Your task to perform on an android device: What's the weather? Image 0: 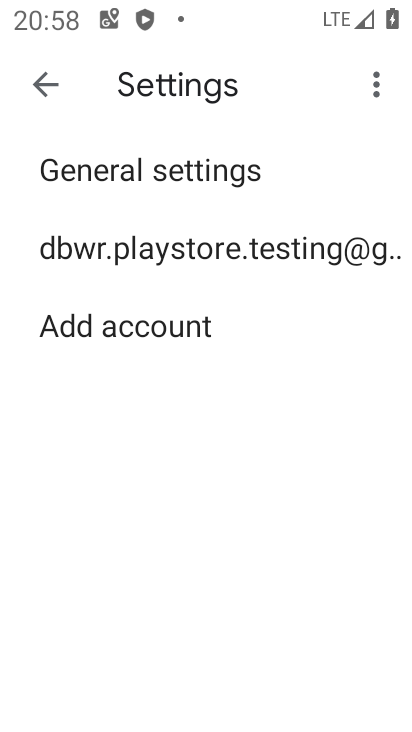
Step 0: press home button
Your task to perform on an android device: What's the weather? Image 1: 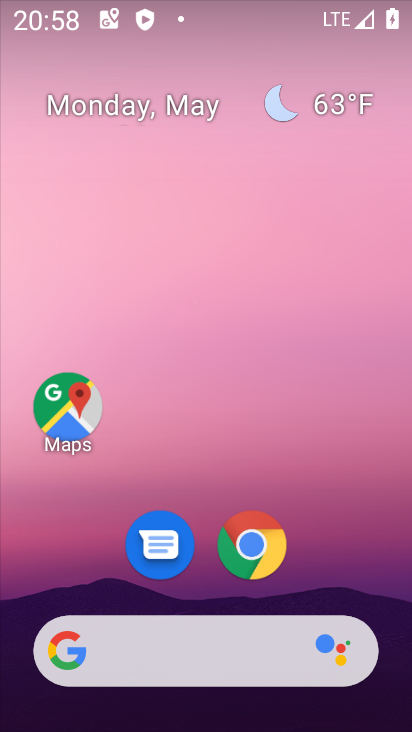
Step 1: click (309, 105)
Your task to perform on an android device: What's the weather? Image 2: 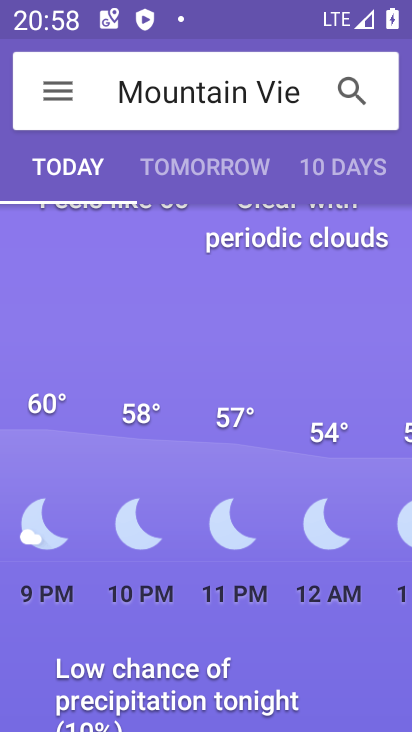
Step 2: task complete